Your task to perform on an android device: turn on wifi Image 0: 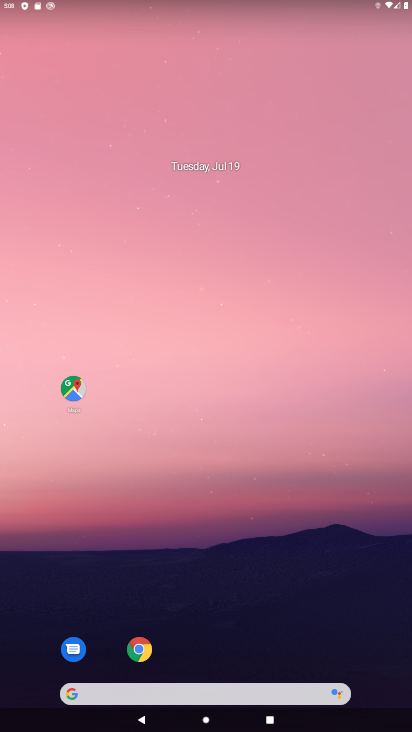
Step 0: drag from (369, 584) to (330, 120)
Your task to perform on an android device: turn on wifi Image 1: 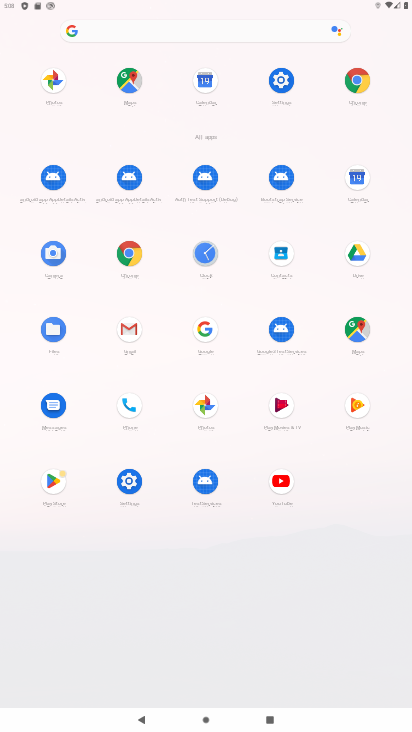
Step 1: click (279, 84)
Your task to perform on an android device: turn on wifi Image 2: 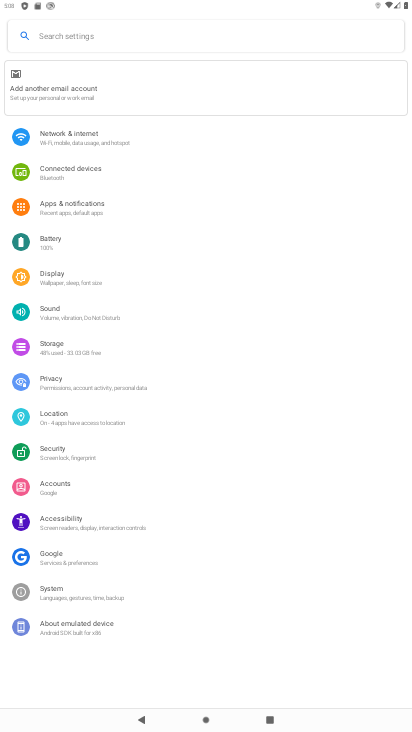
Step 2: click (54, 141)
Your task to perform on an android device: turn on wifi Image 3: 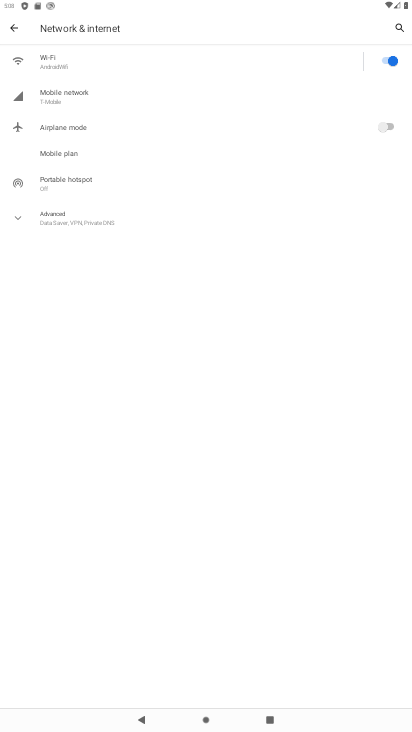
Step 3: task complete